Your task to perform on an android device: turn off airplane mode Image 0: 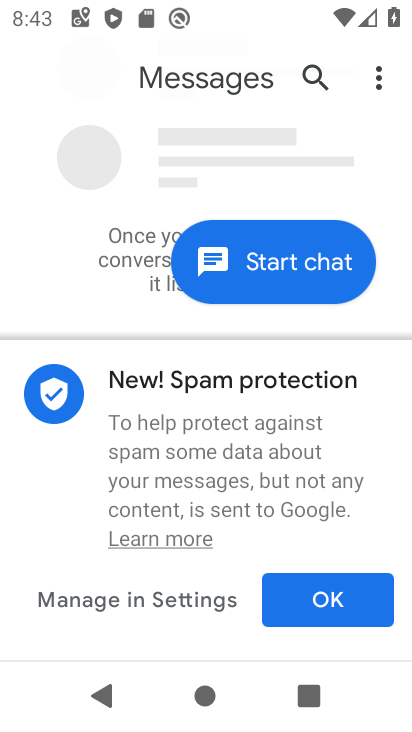
Step 0: press home button
Your task to perform on an android device: turn off airplane mode Image 1: 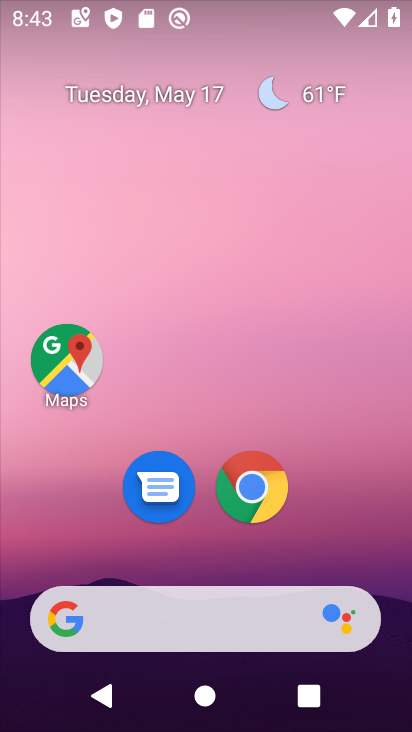
Step 1: drag from (175, 620) to (336, 37)
Your task to perform on an android device: turn off airplane mode Image 2: 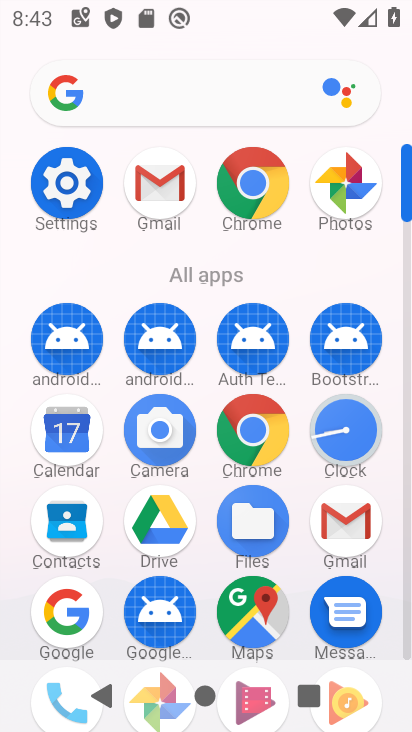
Step 2: click (56, 181)
Your task to perform on an android device: turn off airplane mode Image 3: 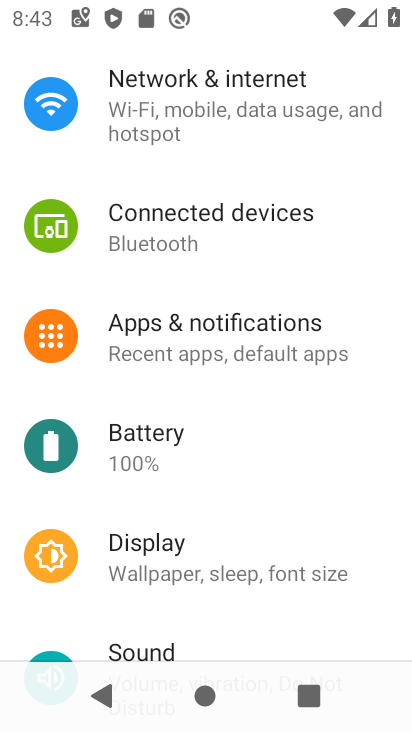
Step 3: drag from (349, 152) to (280, 548)
Your task to perform on an android device: turn off airplane mode Image 4: 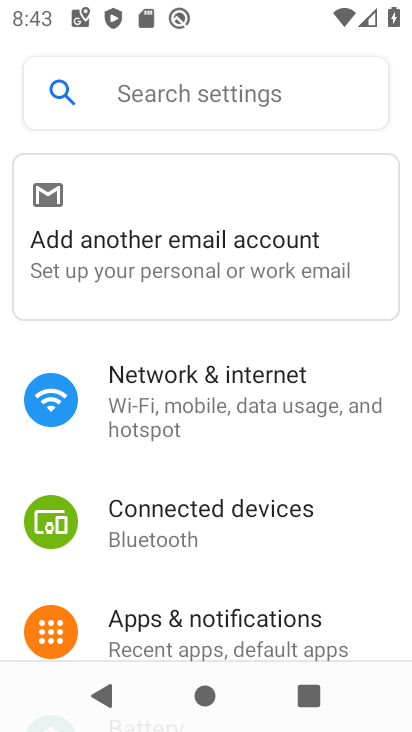
Step 4: click (267, 376)
Your task to perform on an android device: turn off airplane mode Image 5: 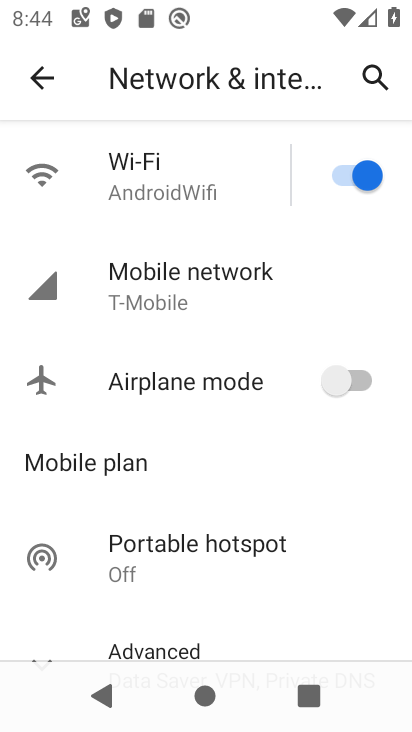
Step 5: task complete